Your task to perform on an android device: Open Yahoo.com Image 0: 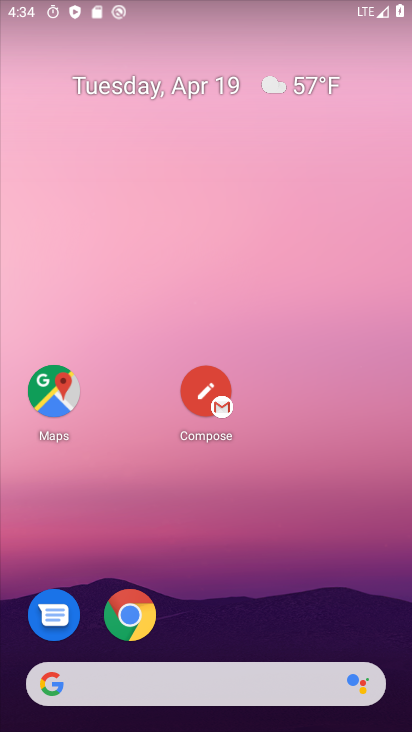
Step 0: drag from (277, 407) to (321, 649)
Your task to perform on an android device: Open Yahoo.com Image 1: 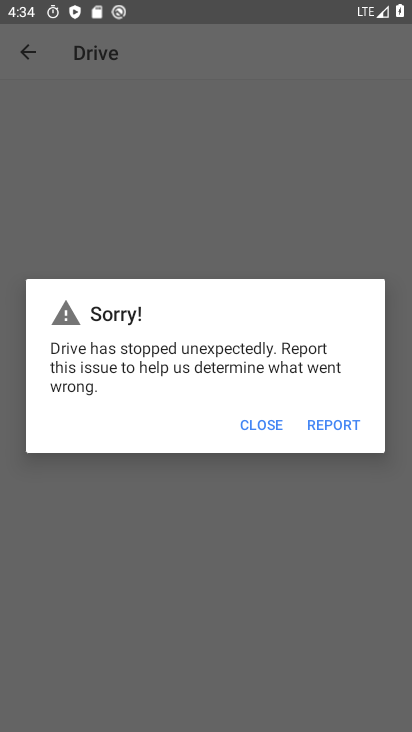
Step 1: press home button
Your task to perform on an android device: Open Yahoo.com Image 2: 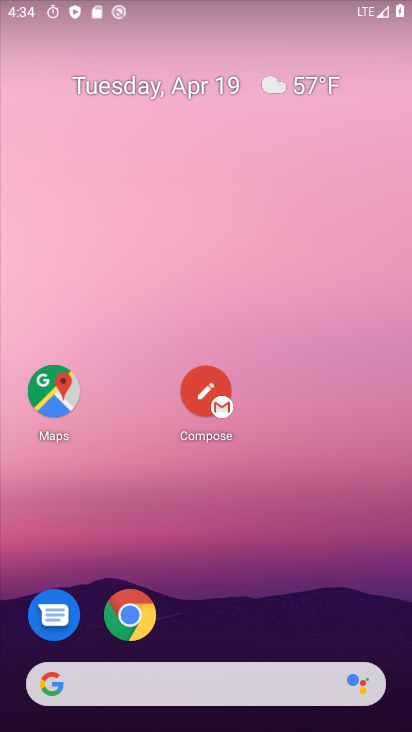
Step 2: drag from (253, 663) to (219, 20)
Your task to perform on an android device: Open Yahoo.com Image 3: 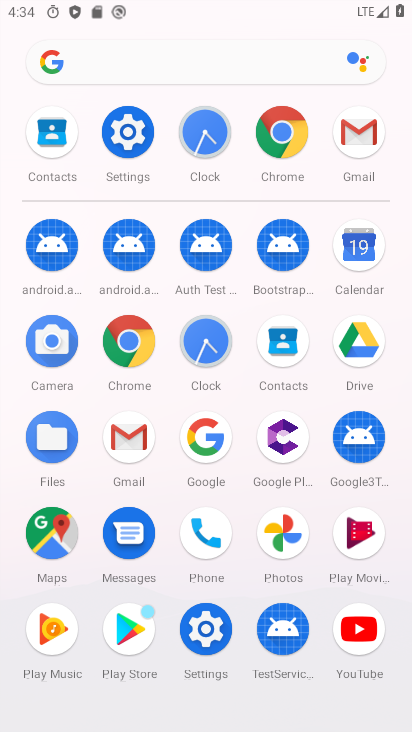
Step 3: click (131, 347)
Your task to perform on an android device: Open Yahoo.com Image 4: 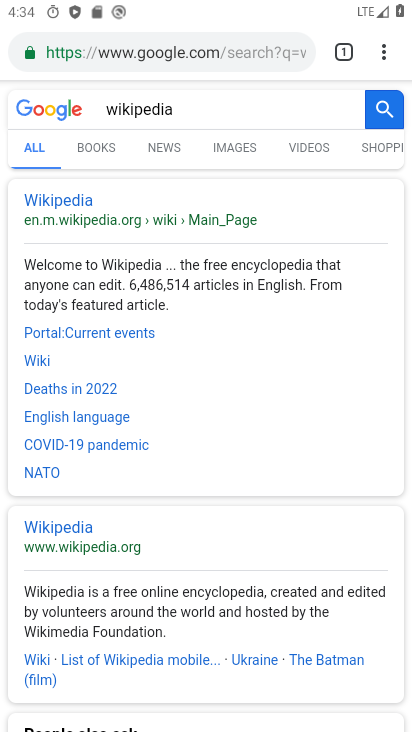
Step 4: click (282, 103)
Your task to perform on an android device: Open Yahoo.com Image 5: 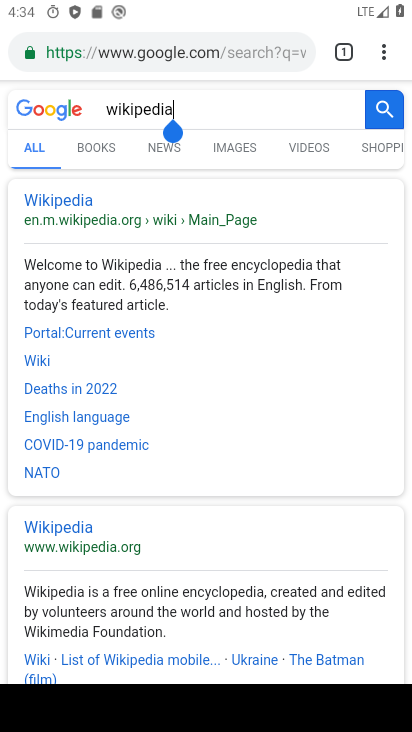
Step 5: click (228, 47)
Your task to perform on an android device: Open Yahoo.com Image 6: 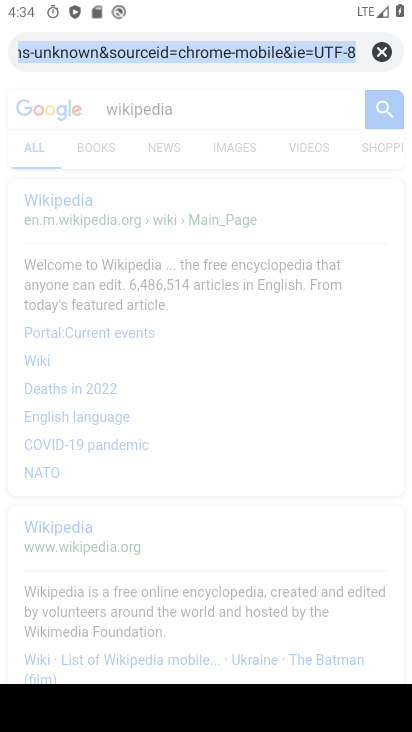
Step 6: click (383, 50)
Your task to perform on an android device: Open Yahoo.com Image 7: 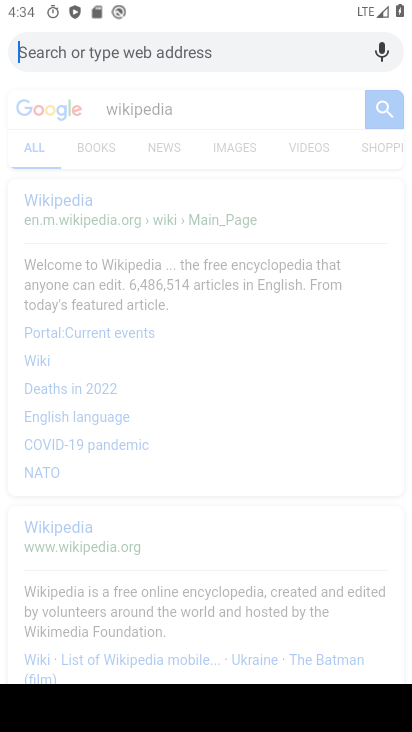
Step 7: type "yahoo"
Your task to perform on an android device: Open Yahoo.com Image 8: 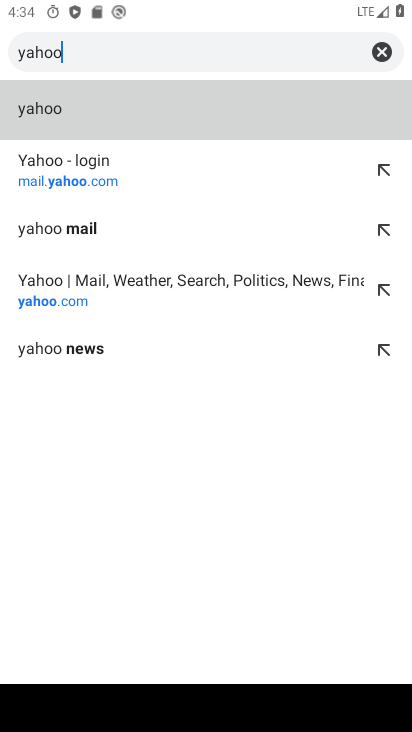
Step 8: click (102, 123)
Your task to perform on an android device: Open Yahoo.com Image 9: 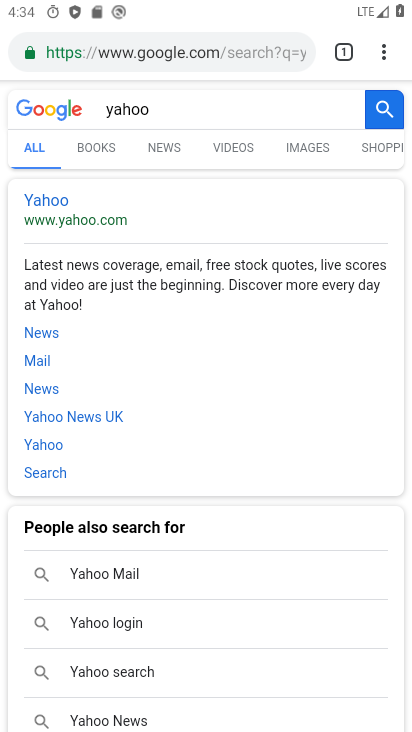
Step 9: task complete